Your task to perform on an android device: Open Amazon Image 0: 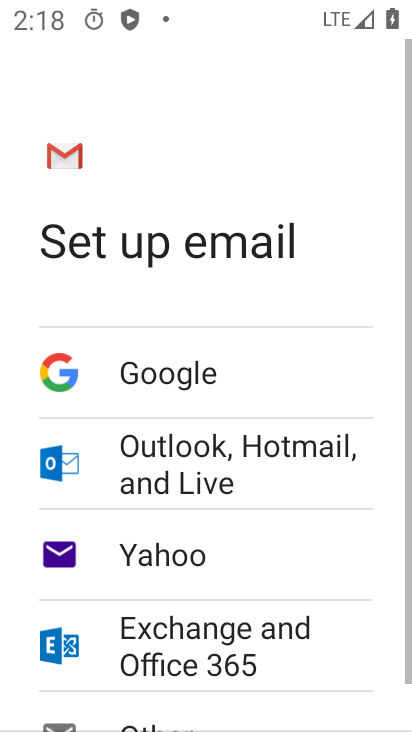
Step 0: press home button
Your task to perform on an android device: Open Amazon Image 1: 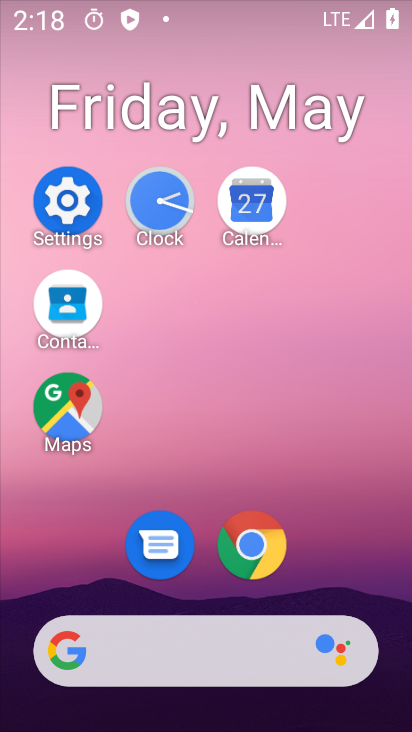
Step 1: click (253, 567)
Your task to perform on an android device: Open Amazon Image 2: 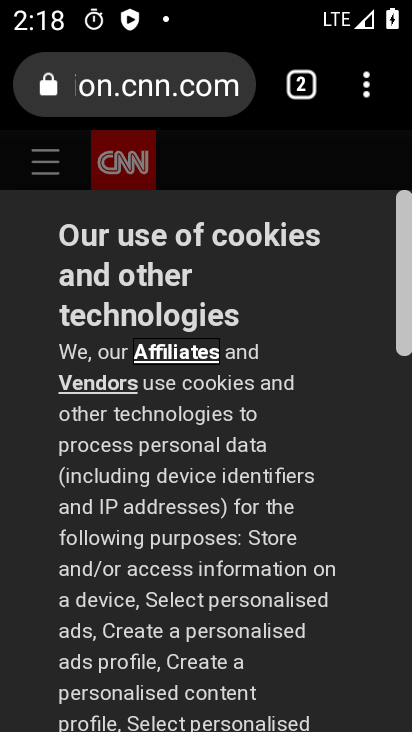
Step 2: click (295, 84)
Your task to perform on an android device: Open Amazon Image 3: 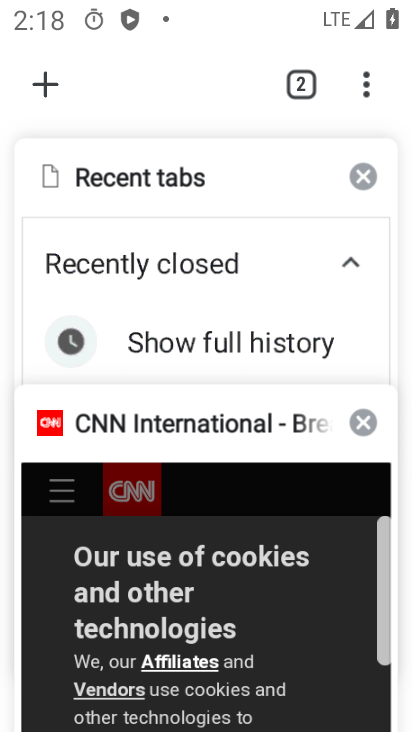
Step 3: click (59, 85)
Your task to perform on an android device: Open Amazon Image 4: 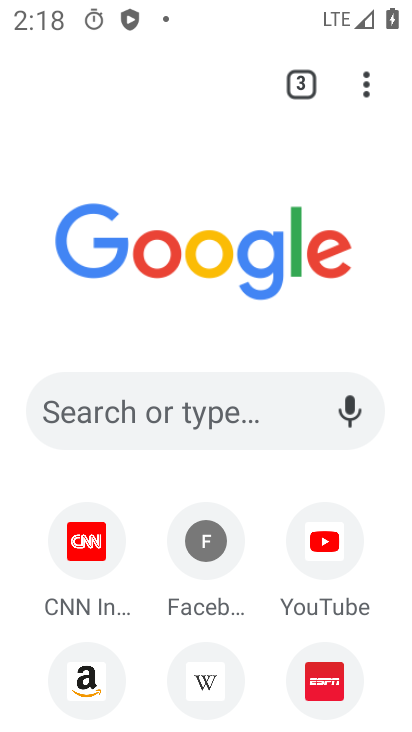
Step 4: click (81, 668)
Your task to perform on an android device: Open Amazon Image 5: 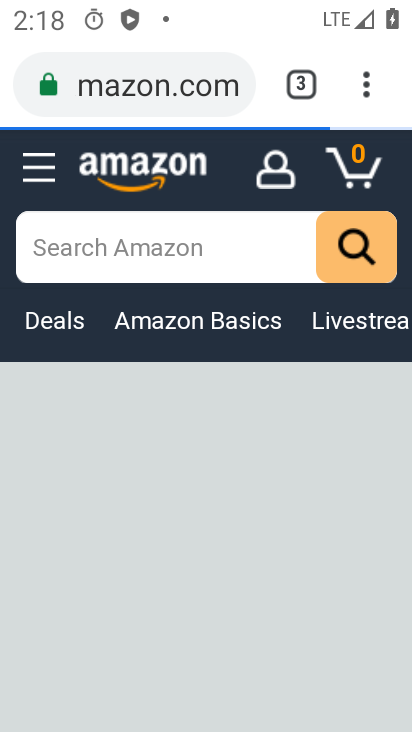
Step 5: task complete